Your task to perform on an android device: Go to Reddit.com Image 0: 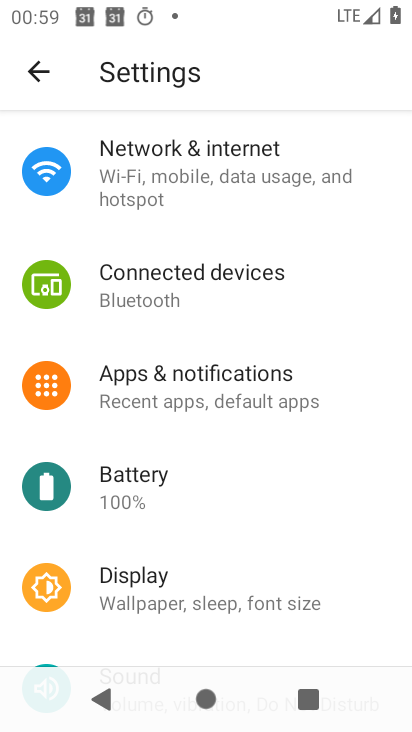
Step 0: press home button
Your task to perform on an android device: Go to Reddit.com Image 1: 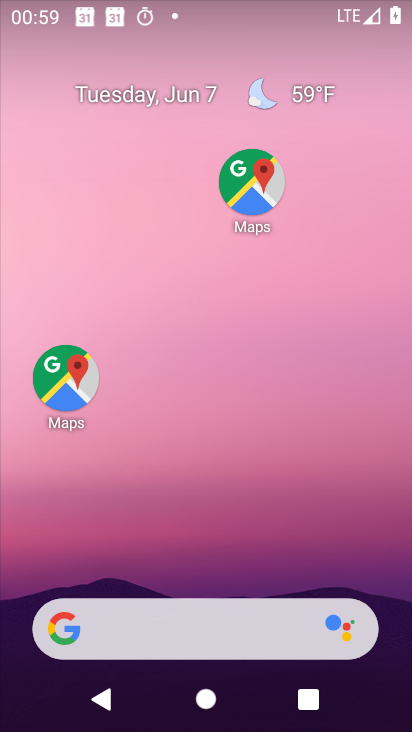
Step 1: drag from (186, 552) to (125, 99)
Your task to perform on an android device: Go to Reddit.com Image 2: 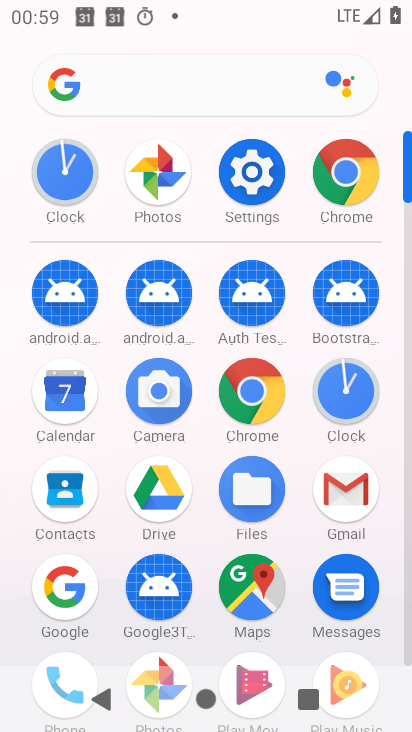
Step 2: click (70, 586)
Your task to perform on an android device: Go to Reddit.com Image 3: 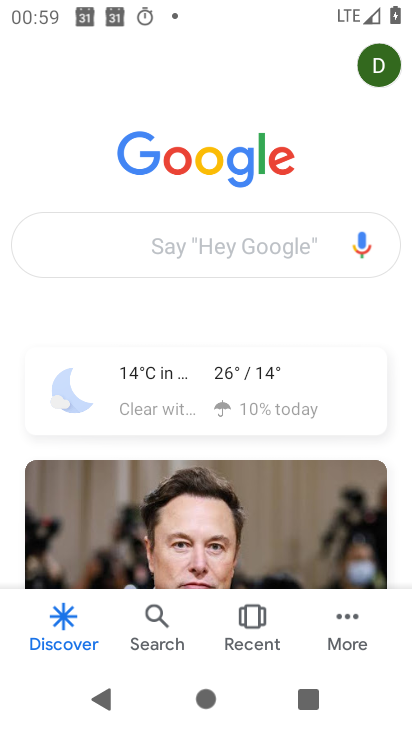
Step 3: click (157, 271)
Your task to perform on an android device: Go to Reddit.com Image 4: 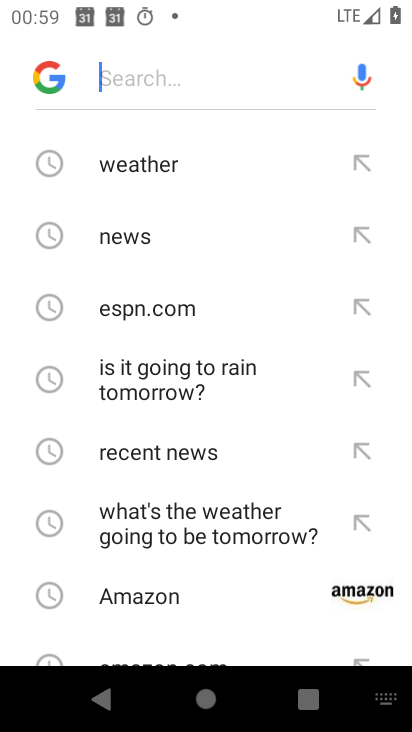
Step 4: drag from (215, 606) to (193, 154)
Your task to perform on an android device: Go to Reddit.com Image 5: 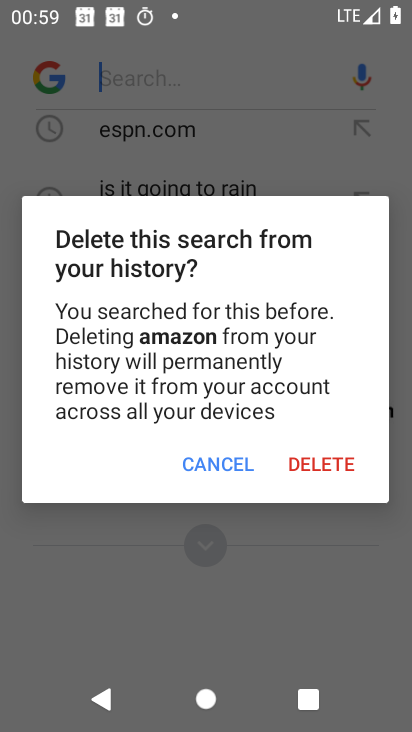
Step 5: click (235, 458)
Your task to perform on an android device: Go to Reddit.com Image 6: 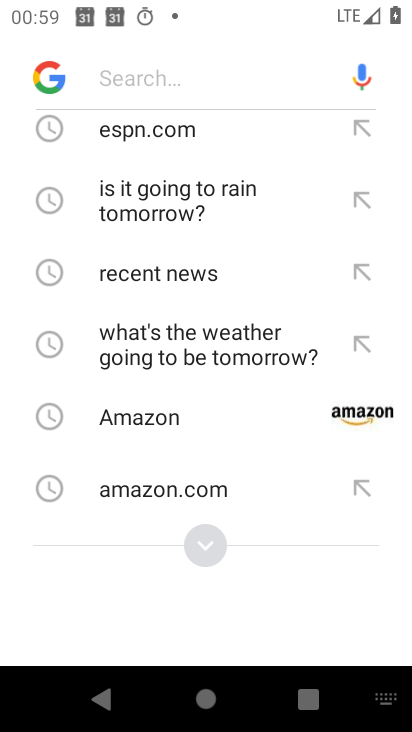
Step 6: click (209, 545)
Your task to perform on an android device: Go to Reddit.com Image 7: 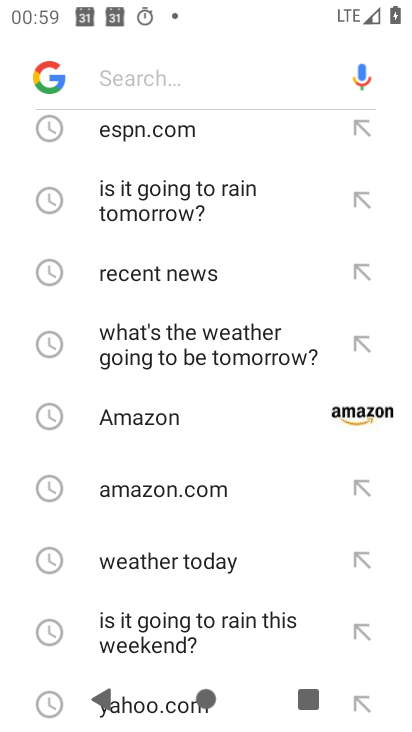
Step 7: drag from (256, 609) to (221, 147)
Your task to perform on an android device: Go to Reddit.com Image 8: 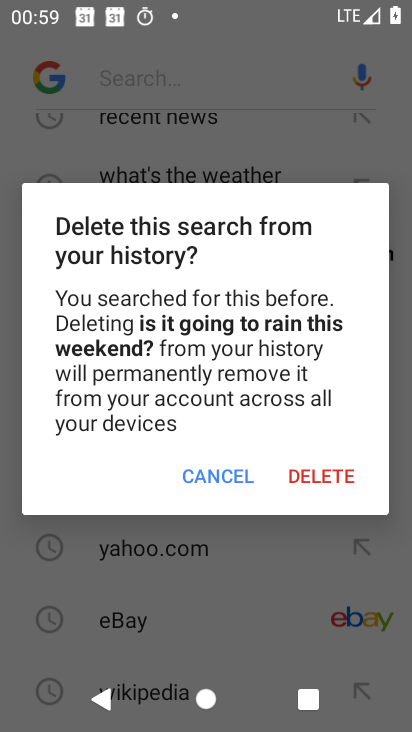
Step 8: click (233, 471)
Your task to perform on an android device: Go to Reddit.com Image 9: 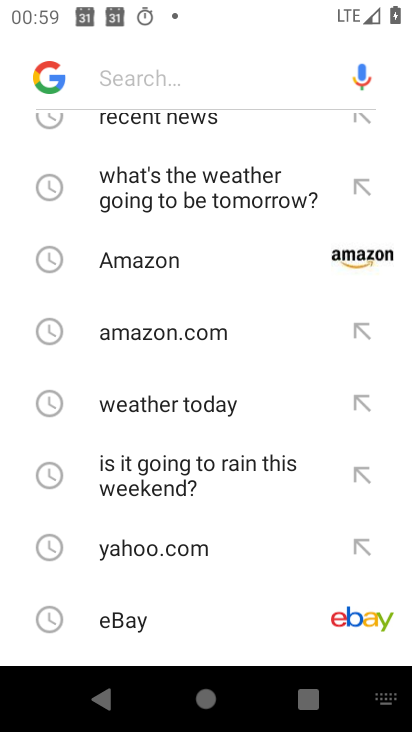
Step 9: drag from (242, 612) to (230, 132)
Your task to perform on an android device: Go to Reddit.com Image 10: 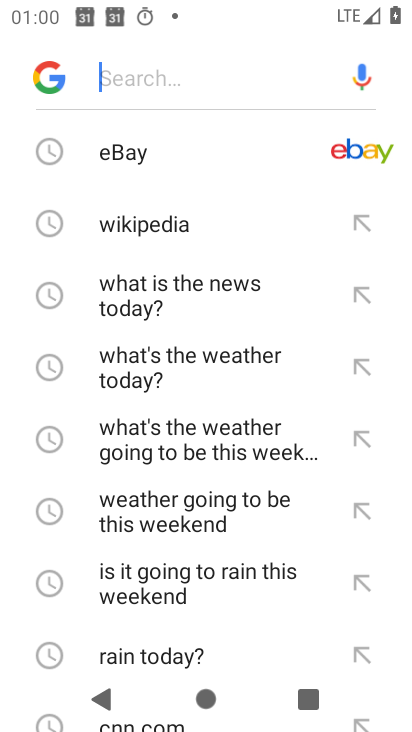
Step 10: type "reddit.com"
Your task to perform on an android device: Go to Reddit.com Image 11: 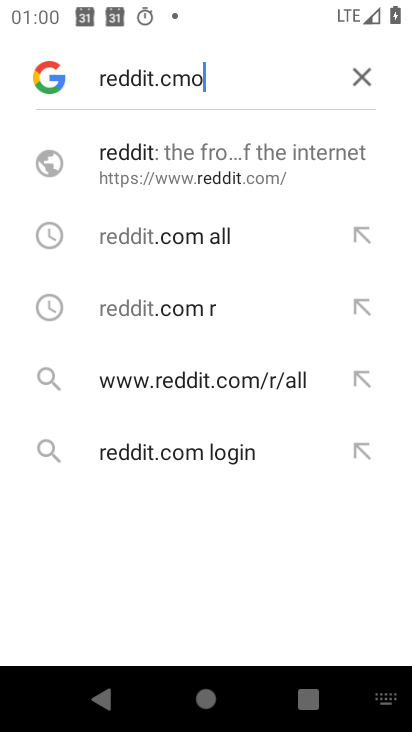
Step 11: click (184, 157)
Your task to perform on an android device: Go to Reddit.com Image 12: 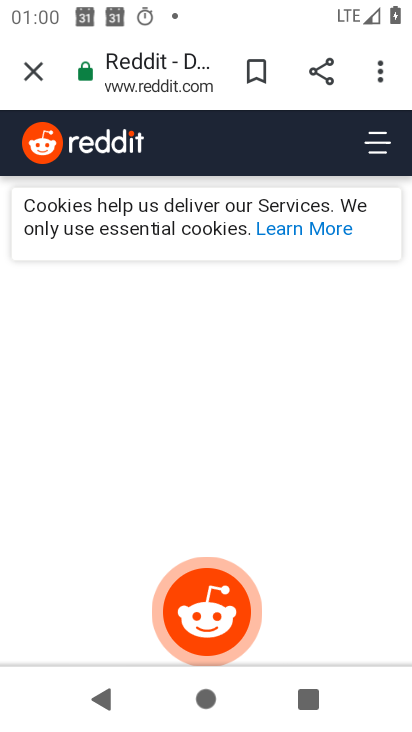
Step 12: task complete